Your task to perform on an android device: change your default location settings in chrome Image 0: 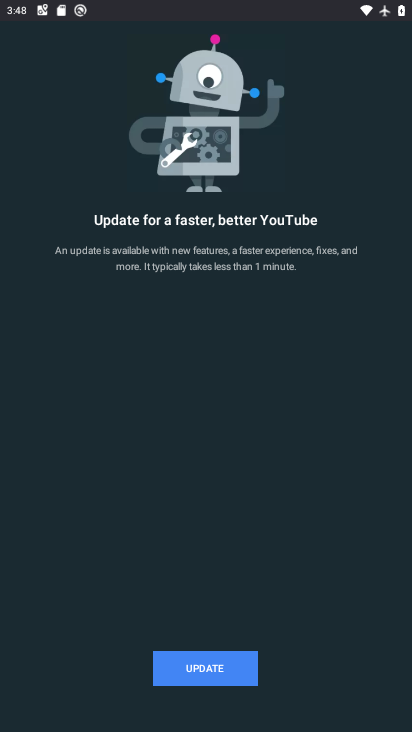
Step 0: press back button
Your task to perform on an android device: change your default location settings in chrome Image 1: 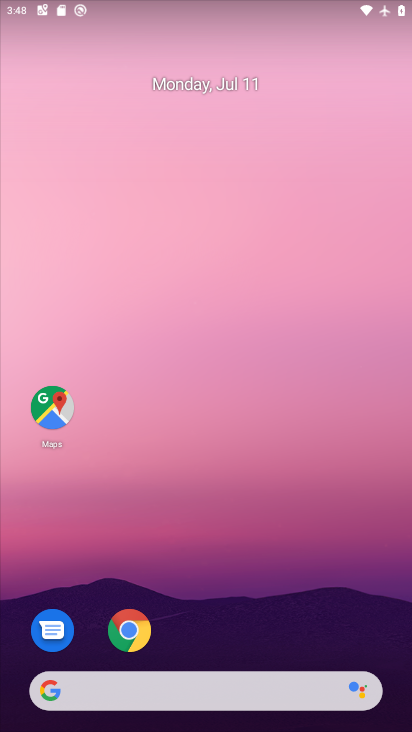
Step 1: drag from (322, 633) to (263, 222)
Your task to perform on an android device: change your default location settings in chrome Image 2: 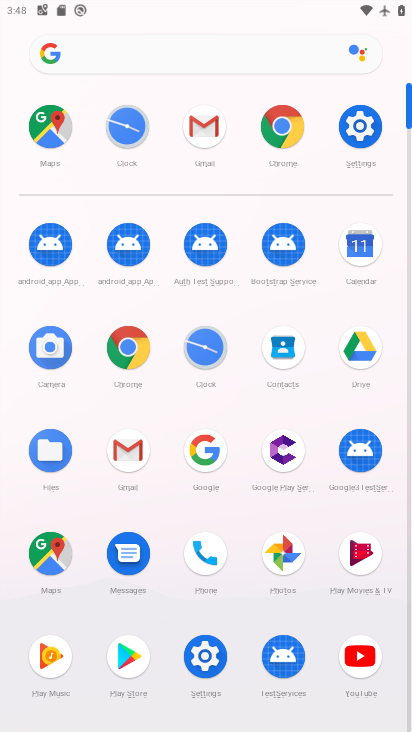
Step 2: click (263, 222)
Your task to perform on an android device: change your default location settings in chrome Image 3: 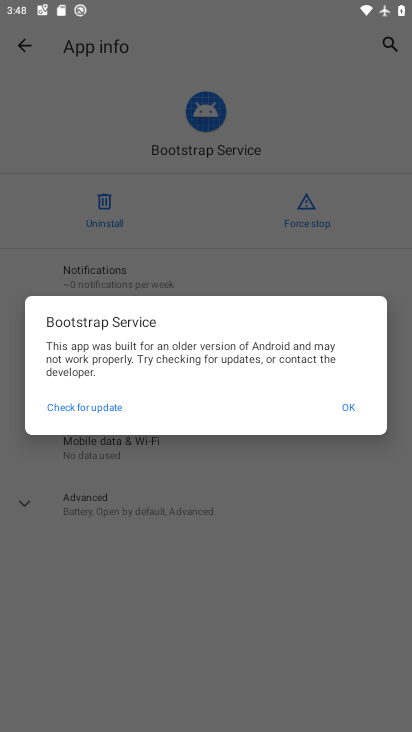
Step 3: click (326, 399)
Your task to perform on an android device: change your default location settings in chrome Image 4: 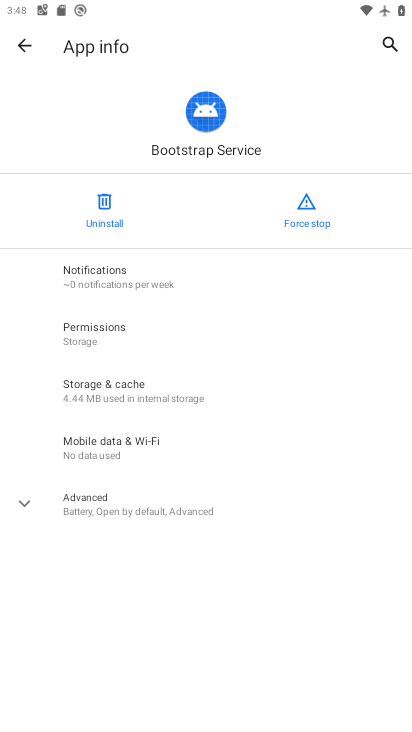
Step 4: press home button
Your task to perform on an android device: change your default location settings in chrome Image 5: 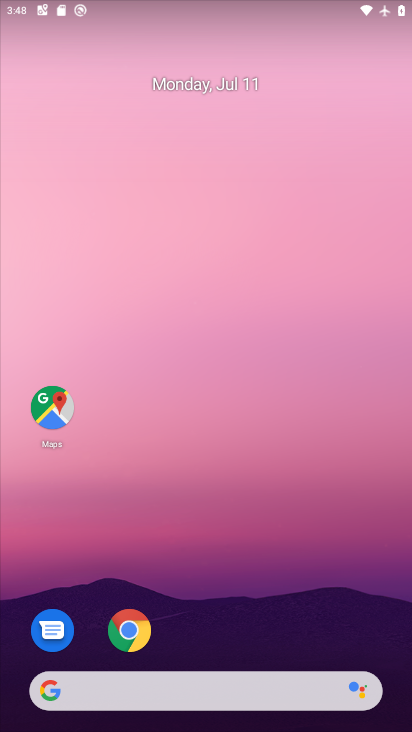
Step 5: click (262, 661)
Your task to perform on an android device: change your default location settings in chrome Image 6: 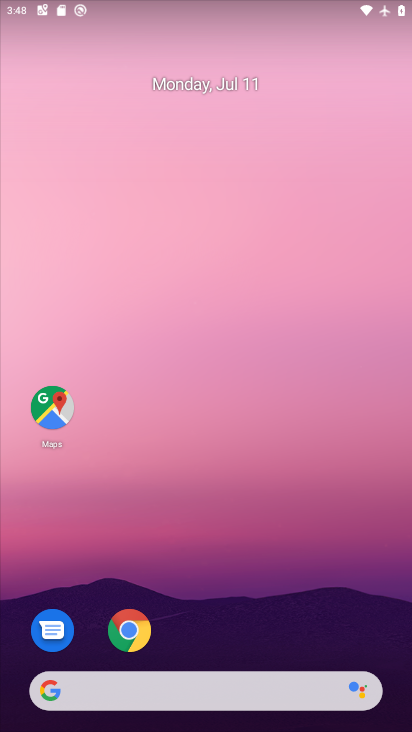
Step 6: click (125, 636)
Your task to perform on an android device: change your default location settings in chrome Image 7: 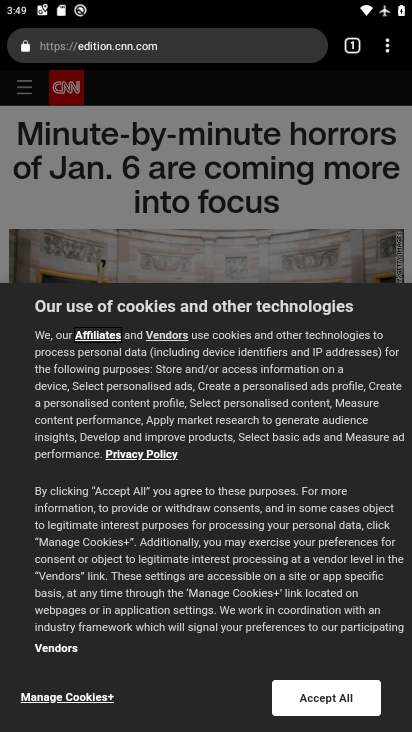
Step 7: click (388, 49)
Your task to perform on an android device: change your default location settings in chrome Image 8: 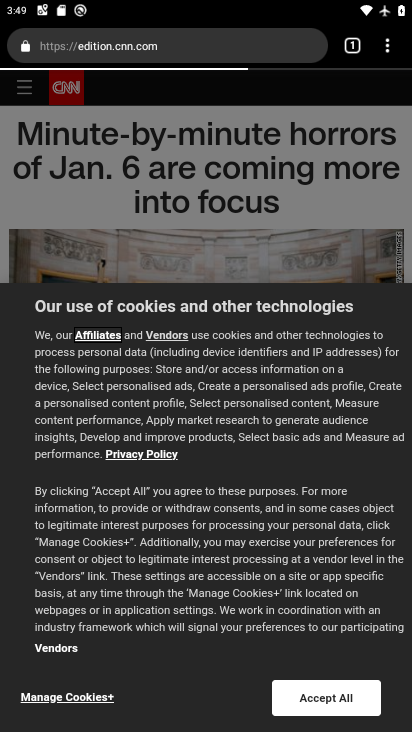
Step 8: click (384, 60)
Your task to perform on an android device: change your default location settings in chrome Image 9: 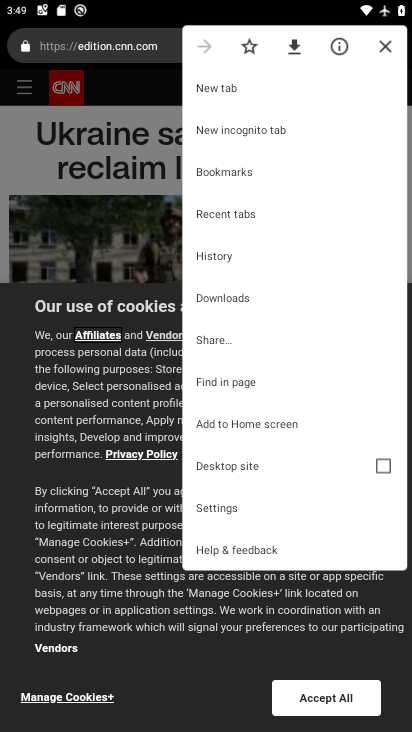
Step 9: click (276, 510)
Your task to perform on an android device: change your default location settings in chrome Image 10: 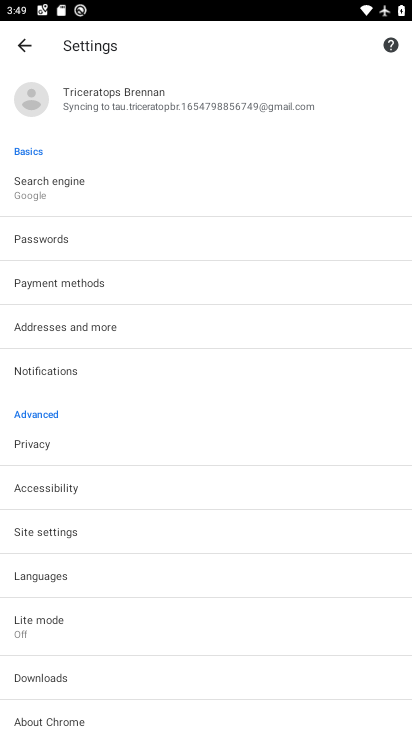
Step 10: click (117, 334)
Your task to perform on an android device: change your default location settings in chrome Image 11: 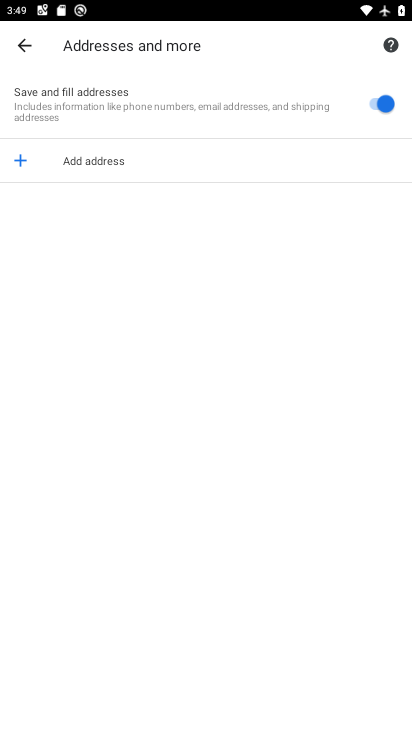
Step 11: task complete